Your task to perform on an android device: What's the news in the Dominican Republic? Image 0: 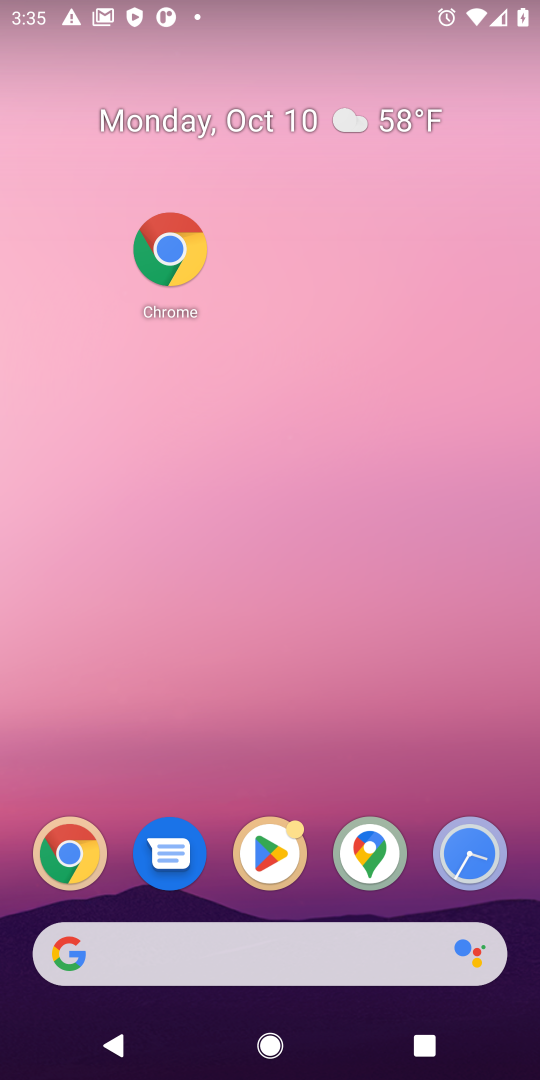
Step 0: click (74, 853)
Your task to perform on an android device: What's the news in the Dominican Republic? Image 1: 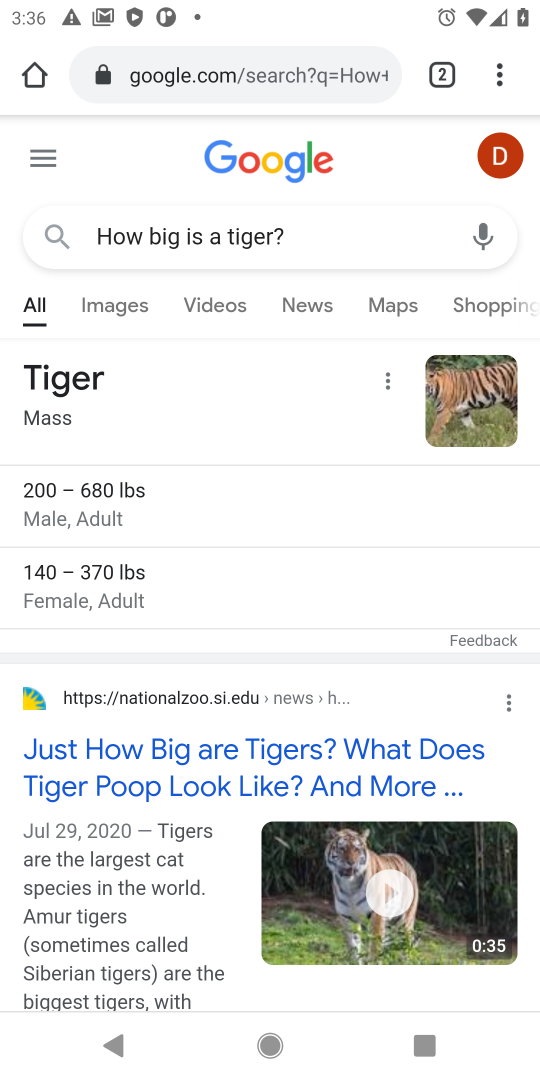
Step 1: click (226, 79)
Your task to perform on an android device: What's the news in the Dominican Republic? Image 2: 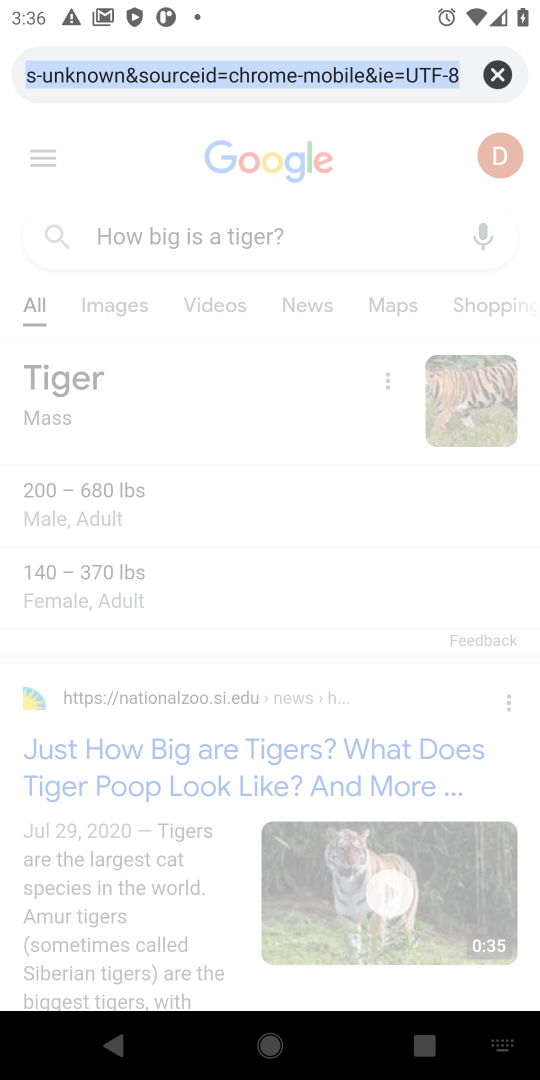
Step 2: type "What's the news in the Dominican Republic?"
Your task to perform on an android device: What's the news in the Dominican Republic? Image 3: 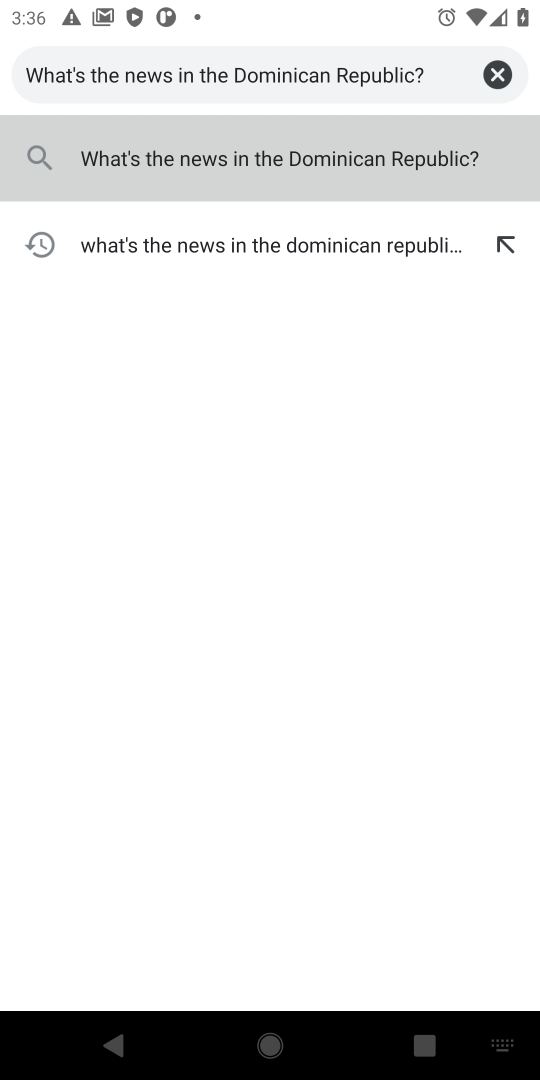
Step 3: click (443, 169)
Your task to perform on an android device: What's the news in the Dominican Republic? Image 4: 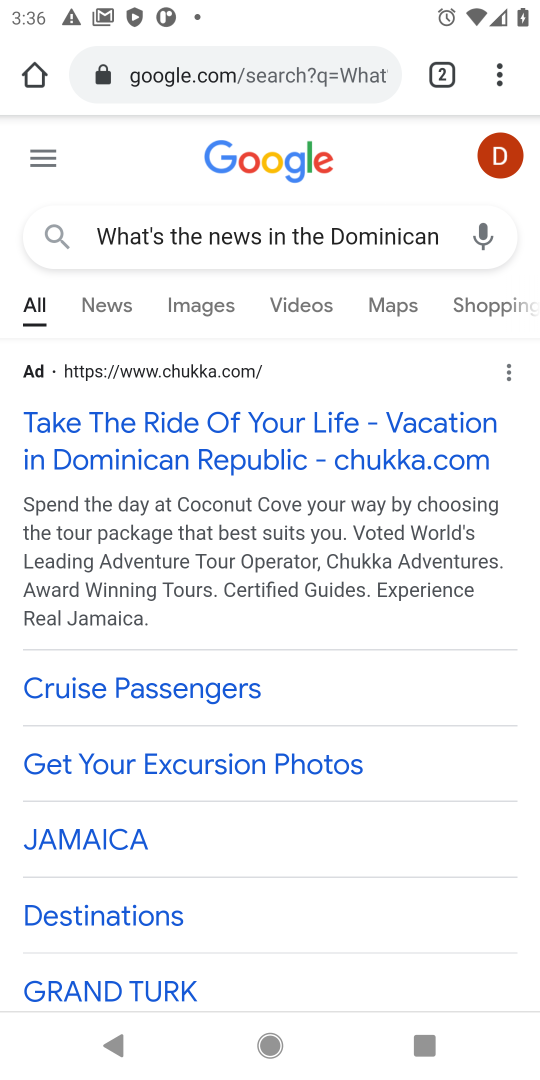
Step 4: click (380, 418)
Your task to perform on an android device: What's the news in the Dominican Republic? Image 5: 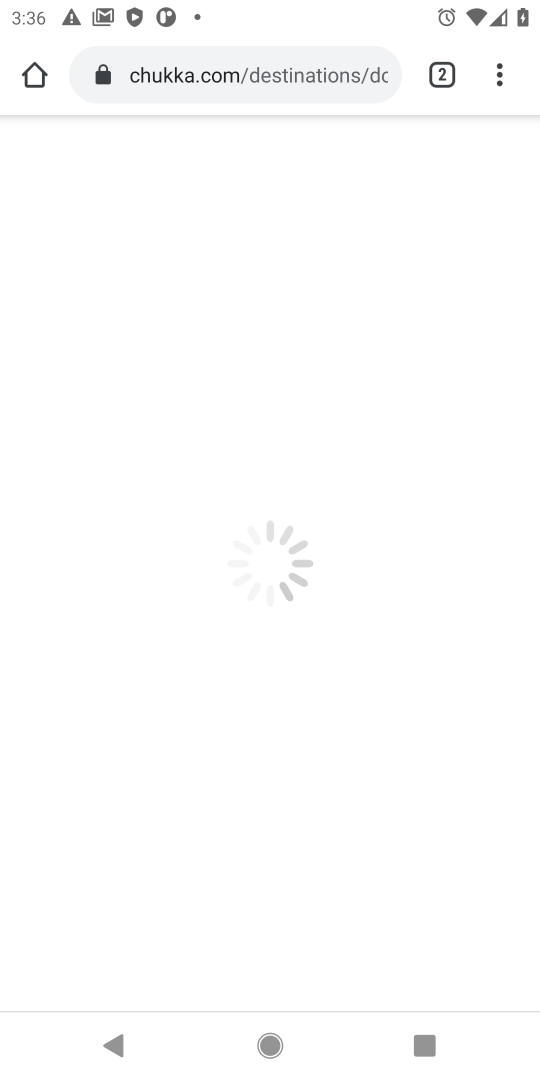
Step 5: task complete